Your task to perform on an android device: change alarm snooze length Image 0: 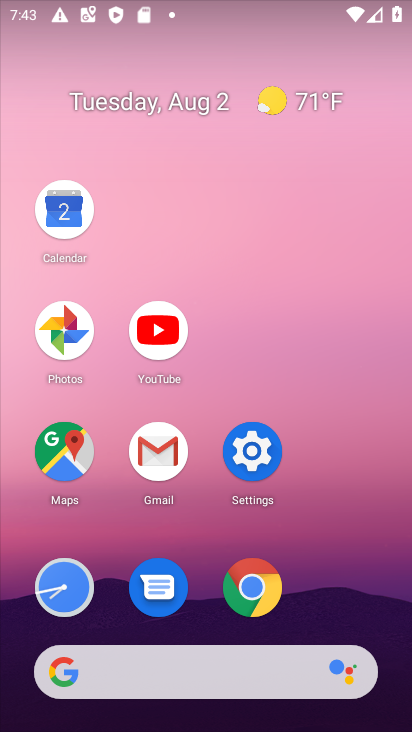
Step 0: click (53, 588)
Your task to perform on an android device: change alarm snooze length Image 1: 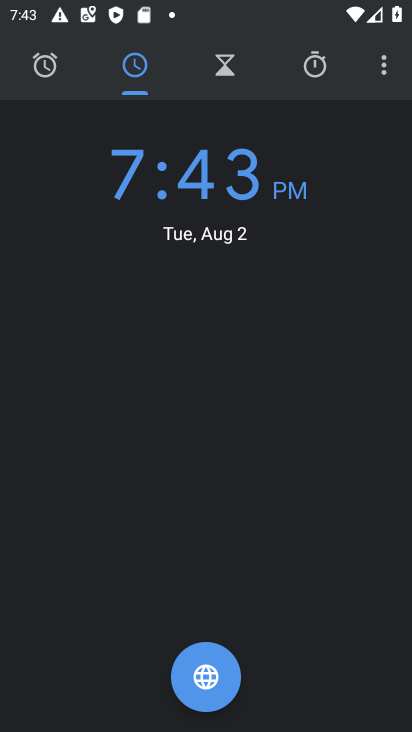
Step 1: click (387, 66)
Your task to perform on an android device: change alarm snooze length Image 2: 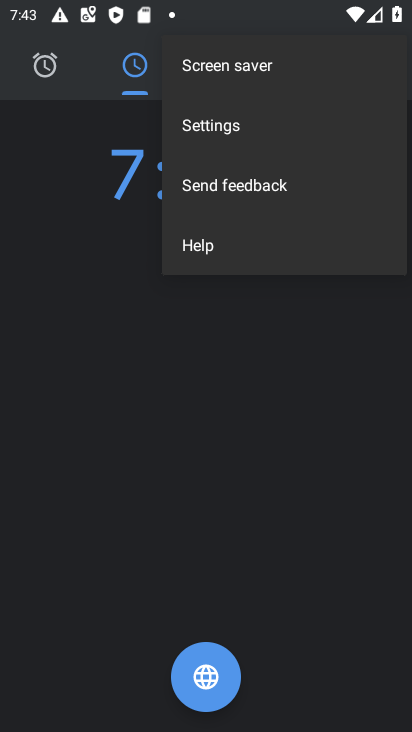
Step 2: click (217, 127)
Your task to perform on an android device: change alarm snooze length Image 3: 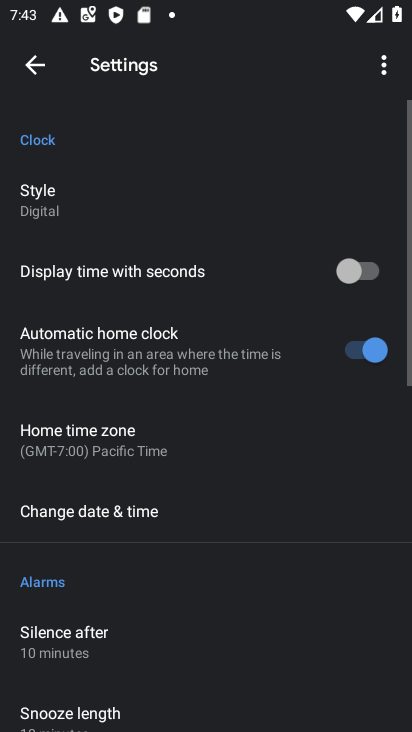
Step 3: click (246, 628)
Your task to perform on an android device: change alarm snooze length Image 4: 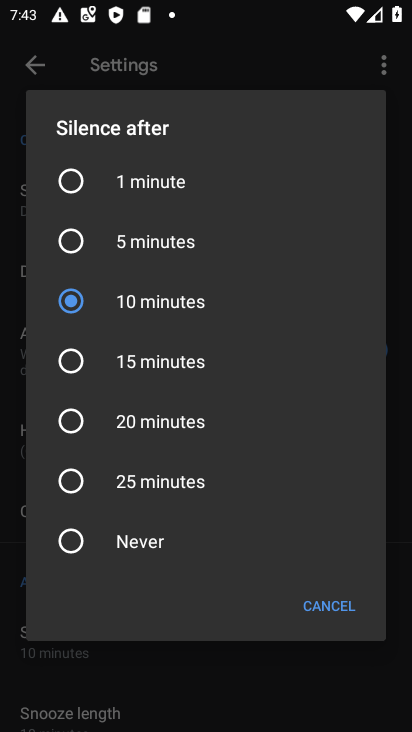
Step 4: click (338, 606)
Your task to perform on an android device: change alarm snooze length Image 5: 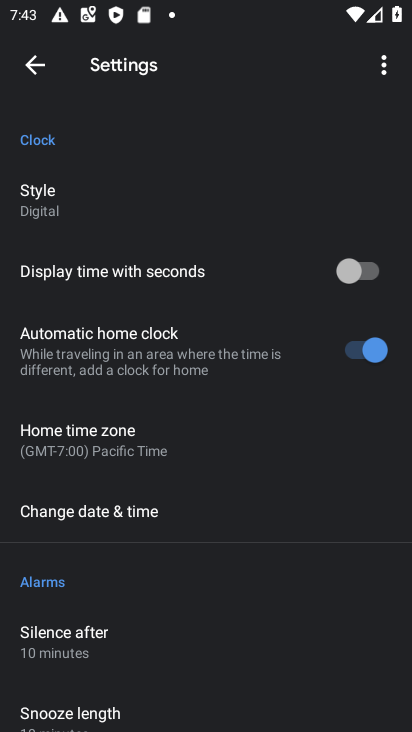
Step 5: click (73, 719)
Your task to perform on an android device: change alarm snooze length Image 6: 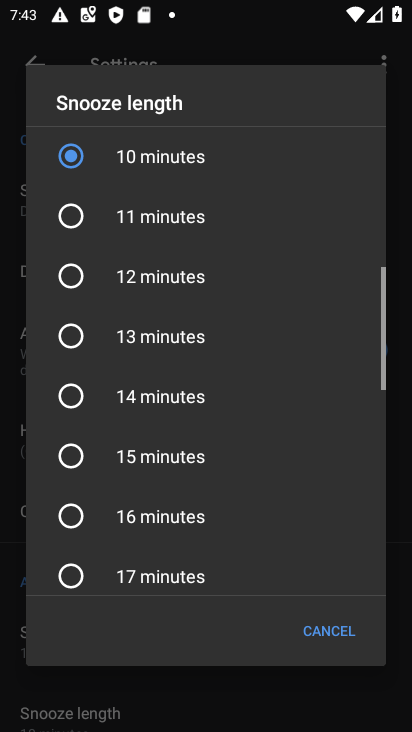
Step 6: click (67, 328)
Your task to perform on an android device: change alarm snooze length Image 7: 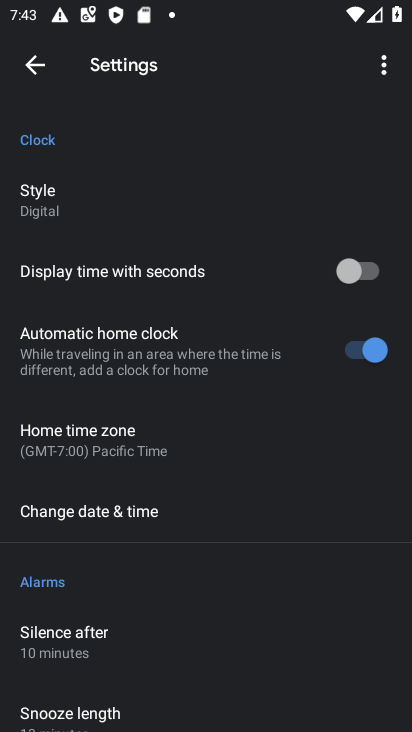
Step 7: task complete